Your task to perform on an android device: Go to Maps Image 0: 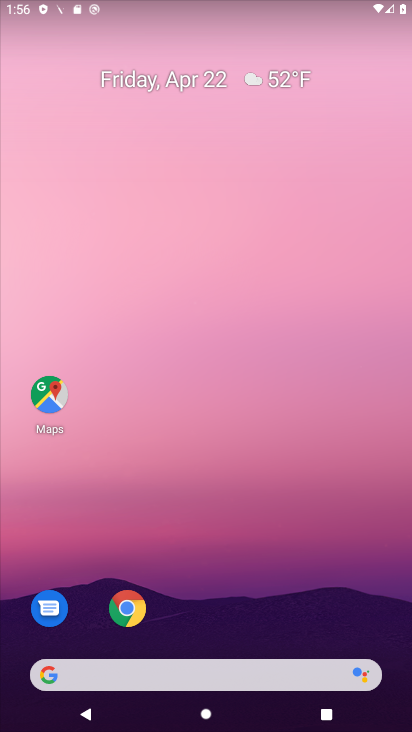
Step 0: click (54, 396)
Your task to perform on an android device: Go to Maps Image 1: 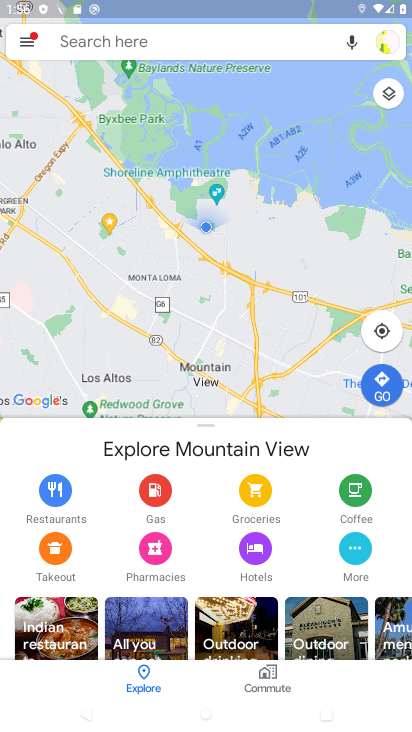
Step 1: task complete